Your task to perform on an android device: Search for sushi restaurants on Maps Image 0: 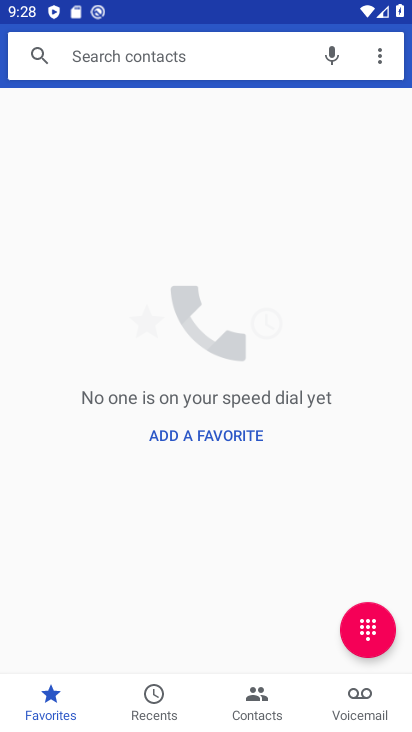
Step 0: press home button
Your task to perform on an android device: Search for sushi restaurants on Maps Image 1: 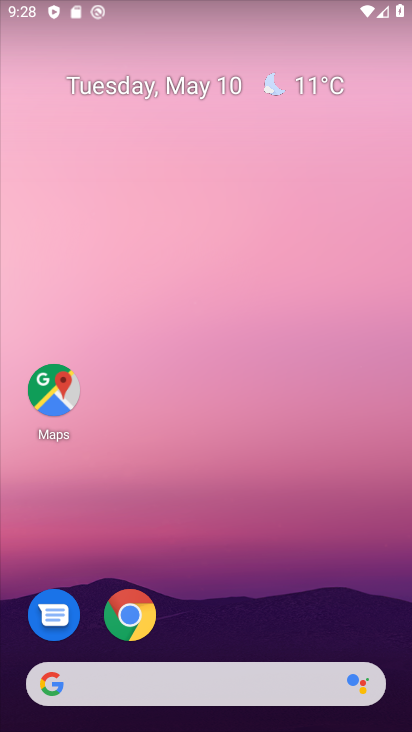
Step 1: click (44, 401)
Your task to perform on an android device: Search for sushi restaurants on Maps Image 2: 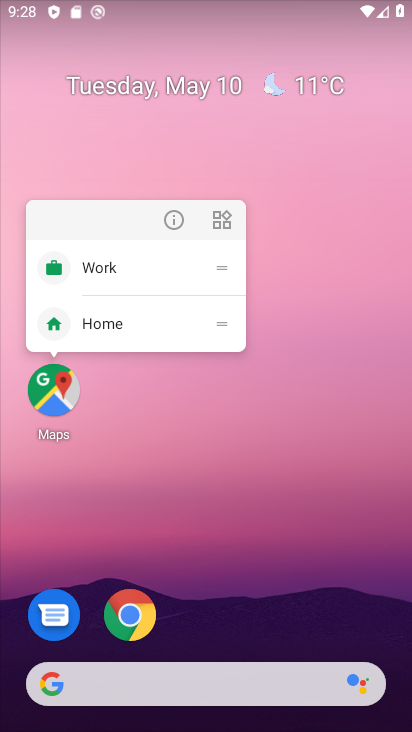
Step 2: click (56, 399)
Your task to perform on an android device: Search for sushi restaurants on Maps Image 3: 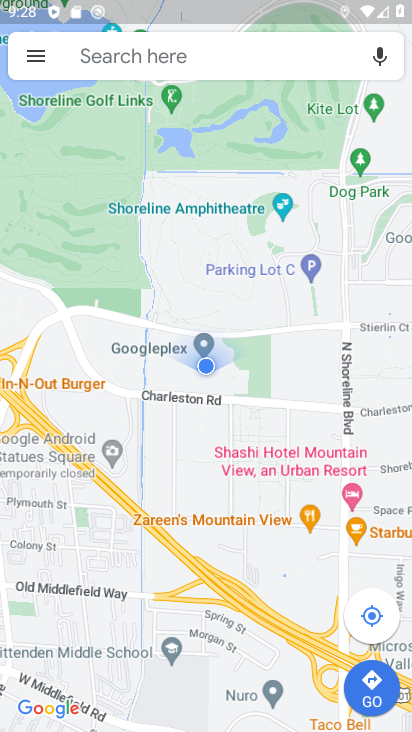
Step 3: click (130, 68)
Your task to perform on an android device: Search for sushi restaurants on Maps Image 4: 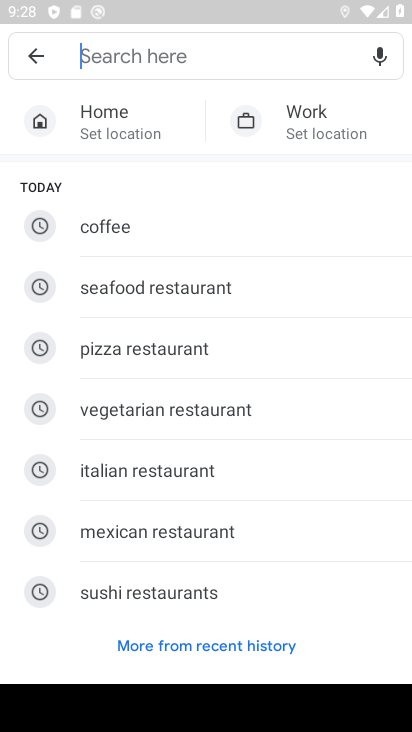
Step 4: click (127, 588)
Your task to perform on an android device: Search for sushi restaurants on Maps Image 5: 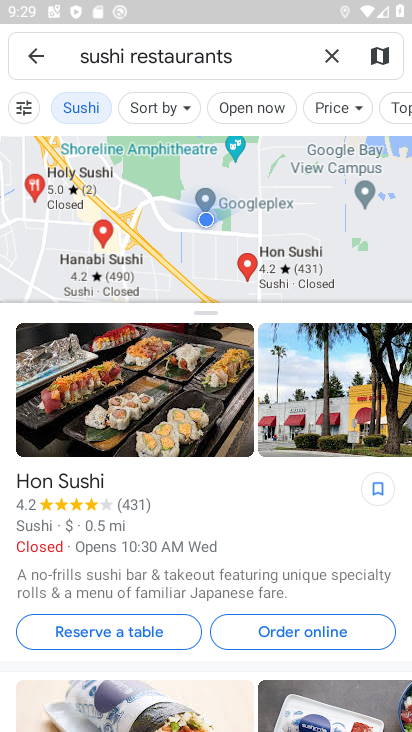
Step 5: task complete